Your task to perform on an android device: open a new tab in the chrome app Image 0: 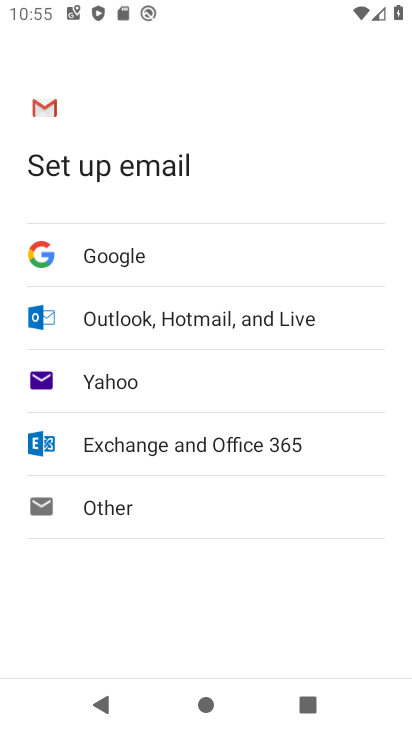
Step 0: press home button
Your task to perform on an android device: open a new tab in the chrome app Image 1: 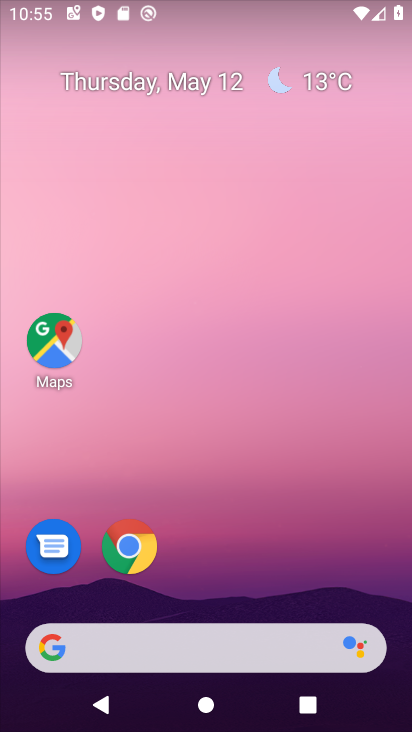
Step 1: drag from (269, 673) to (226, 255)
Your task to perform on an android device: open a new tab in the chrome app Image 2: 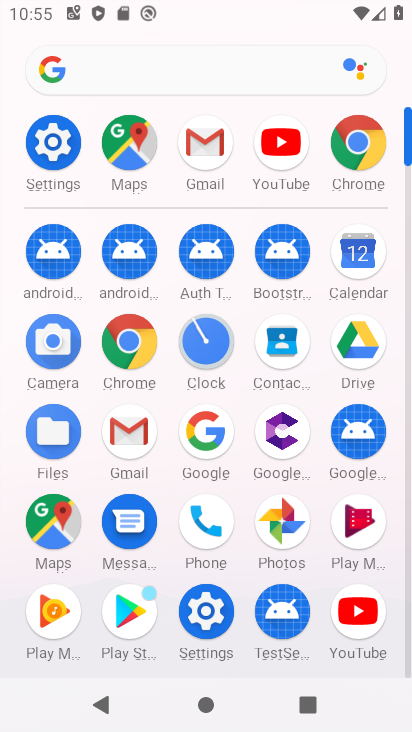
Step 2: click (356, 139)
Your task to perform on an android device: open a new tab in the chrome app Image 3: 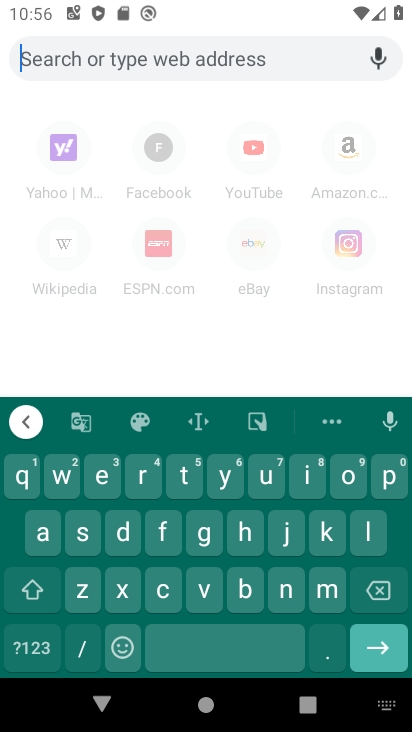
Step 3: press back button
Your task to perform on an android device: open a new tab in the chrome app Image 4: 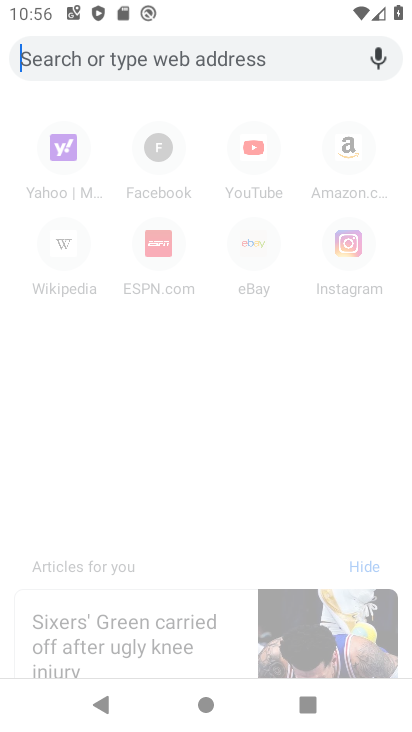
Step 4: press back button
Your task to perform on an android device: open a new tab in the chrome app Image 5: 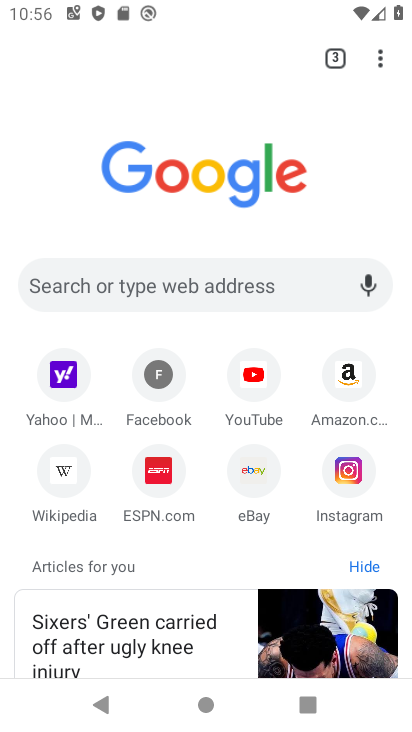
Step 5: click (374, 61)
Your task to perform on an android device: open a new tab in the chrome app Image 6: 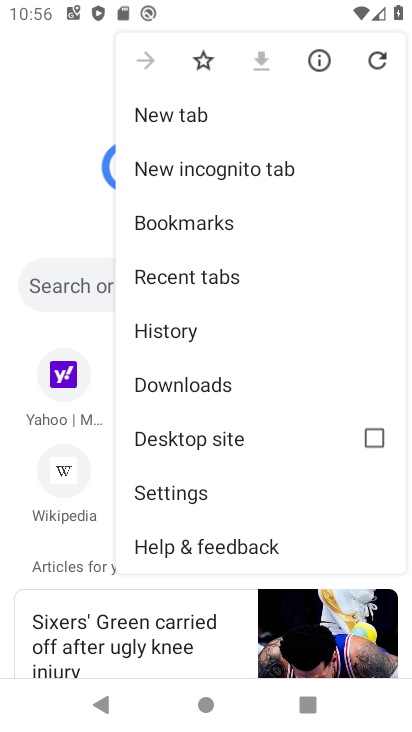
Step 6: click (227, 114)
Your task to perform on an android device: open a new tab in the chrome app Image 7: 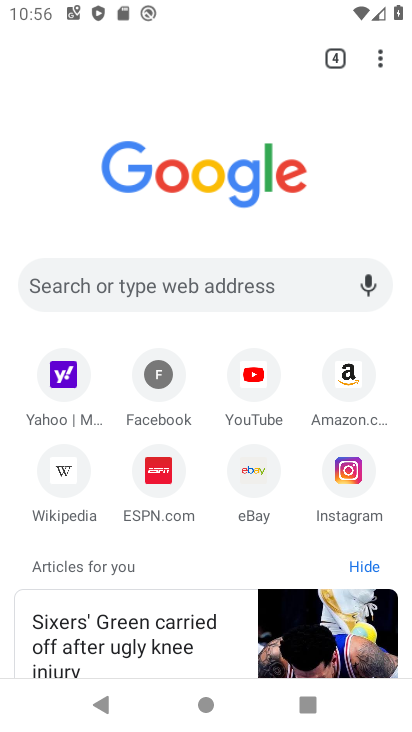
Step 7: task complete